Your task to perform on an android device: turn on sleep mode Image 0: 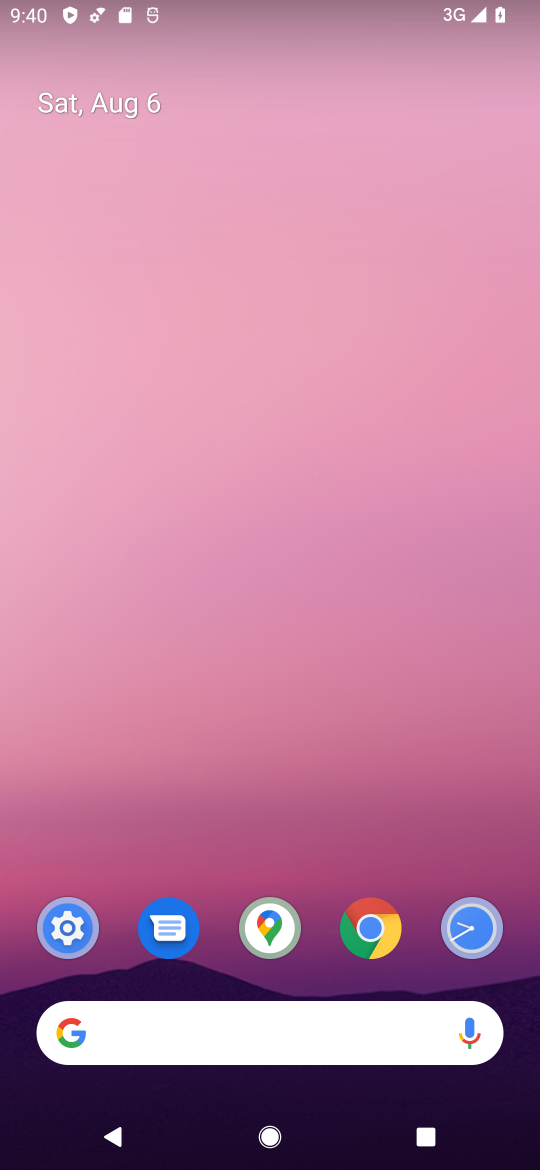
Step 0: click (436, 562)
Your task to perform on an android device: turn on sleep mode Image 1: 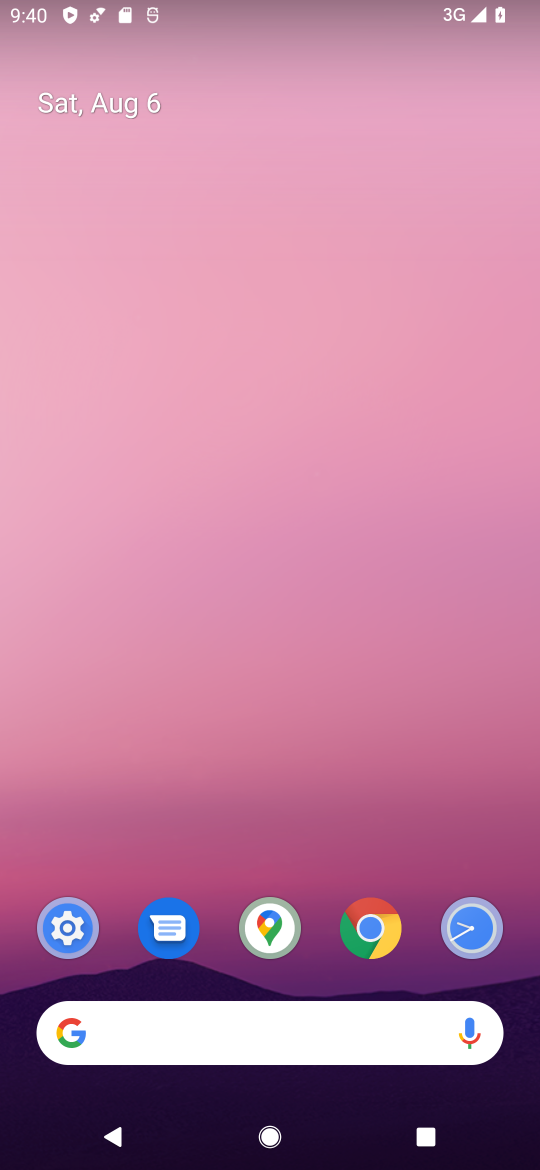
Step 1: press home button
Your task to perform on an android device: turn on sleep mode Image 2: 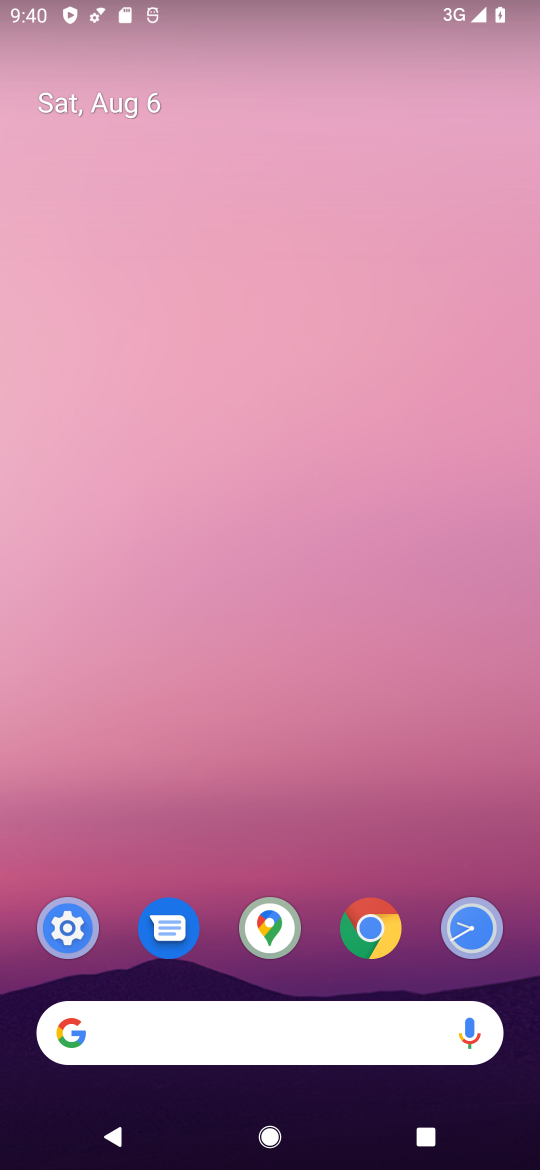
Step 2: drag from (262, 753) to (240, 306)
Your task to perform on an android device: turn on sleep mode Image 3: 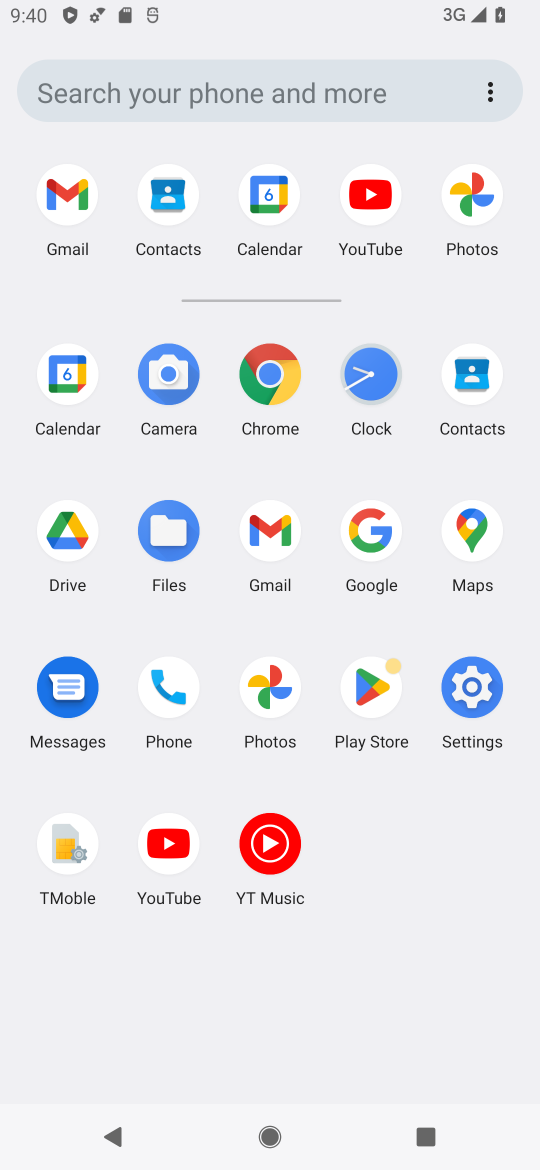
Step 3: click (262, 678)
Your task to perform on an android device: turn on sleep mode Image 4: 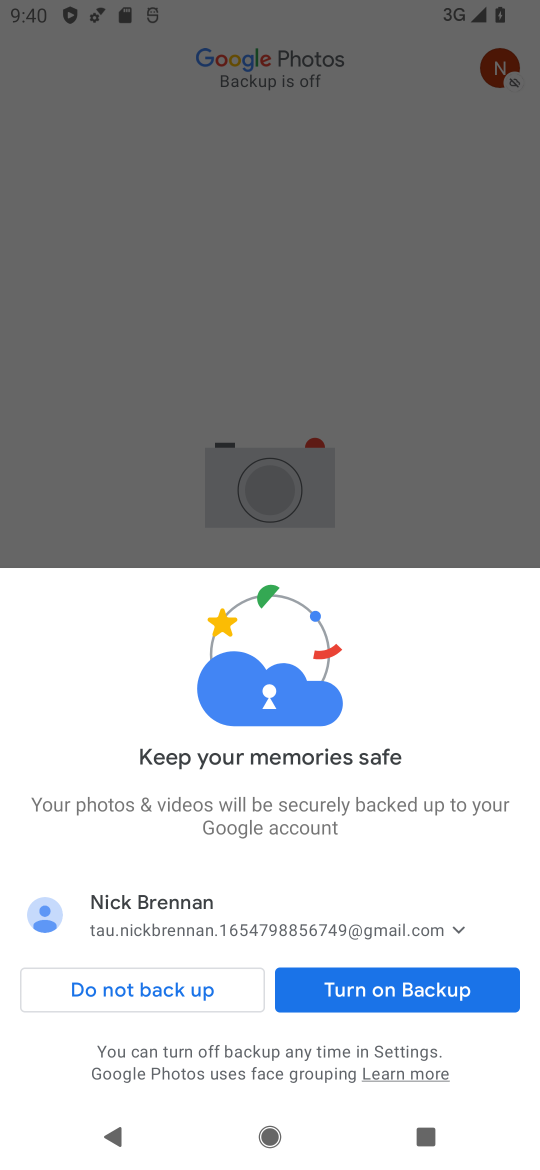
Step 4: press home button
Your task to perform on an android device: turn on sleep mode Image 5: 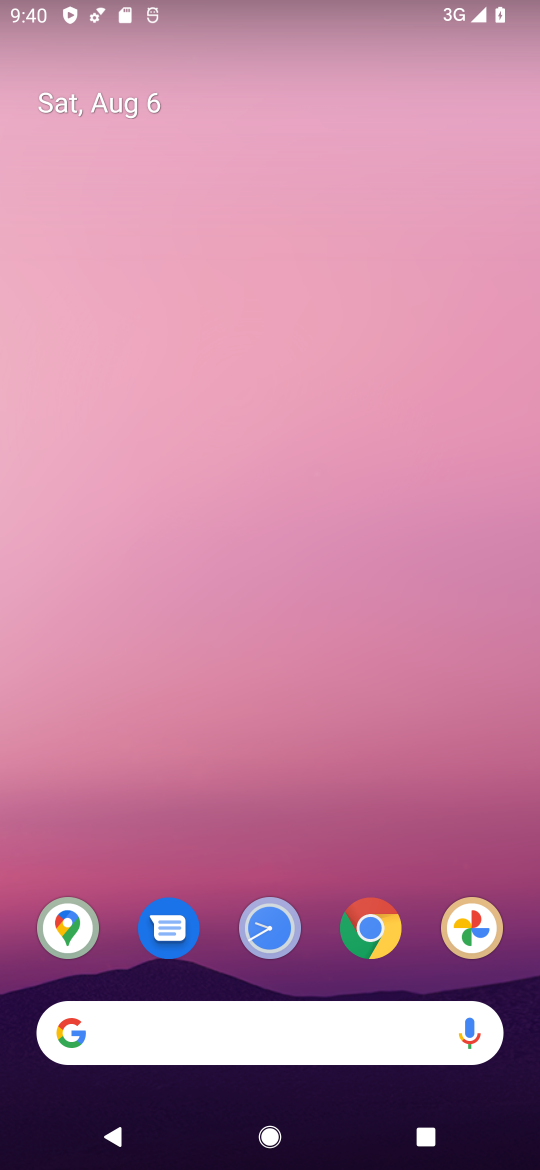
Step 5: drag from (271, 845) to (230, 179)
Your task to perform on an android device: turn on sleep mode Image 6: 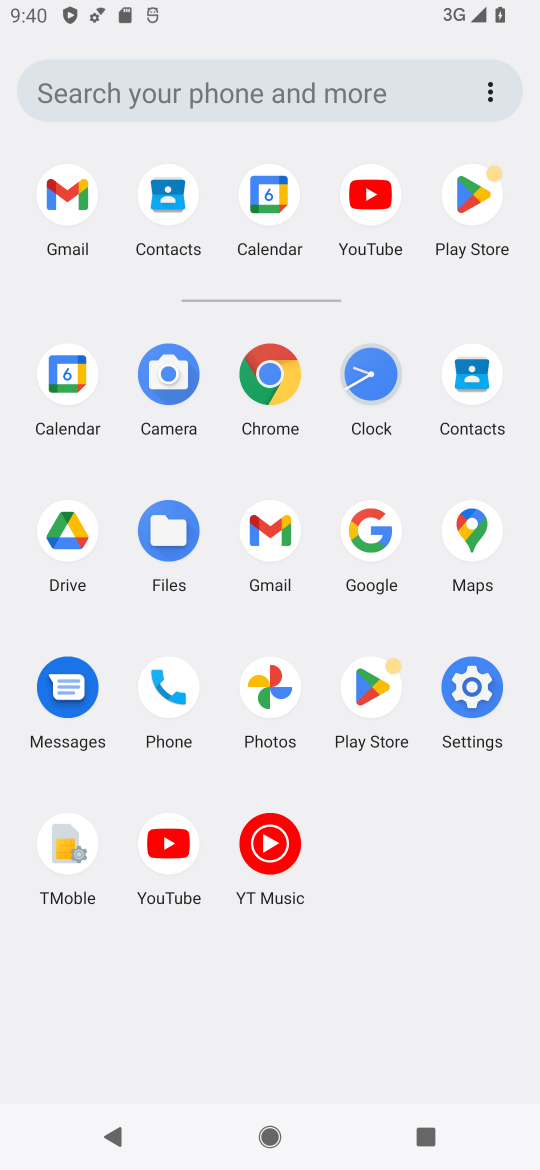
Step 6: click (473, 676)
Your task to perform on an android device: turn on sleep mode Image 7: 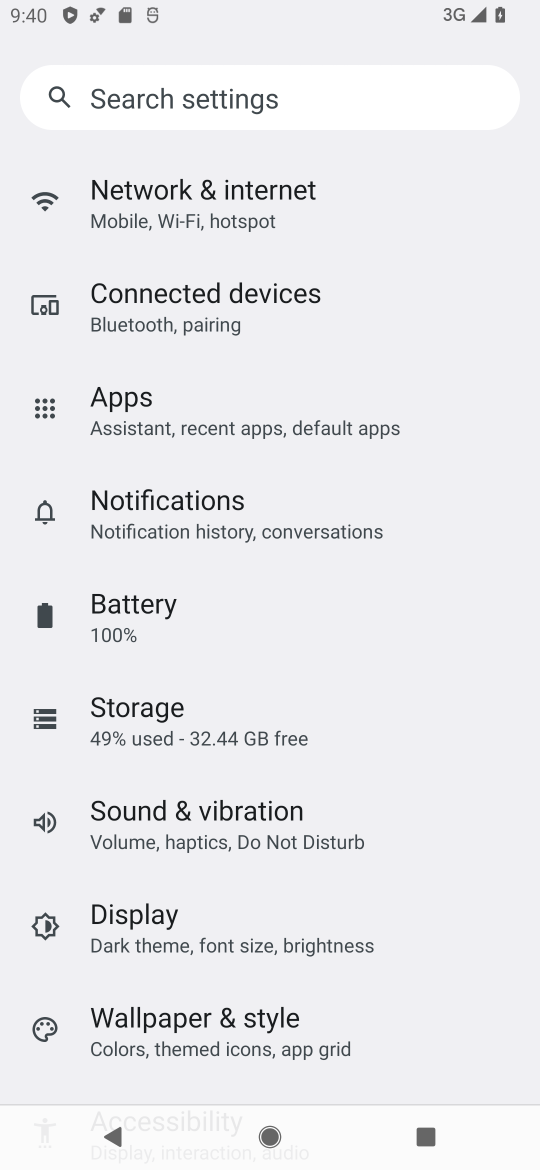
Step 7: click (139, 911)
Your task to perform on an android device: turn on sleep mode Image 8: 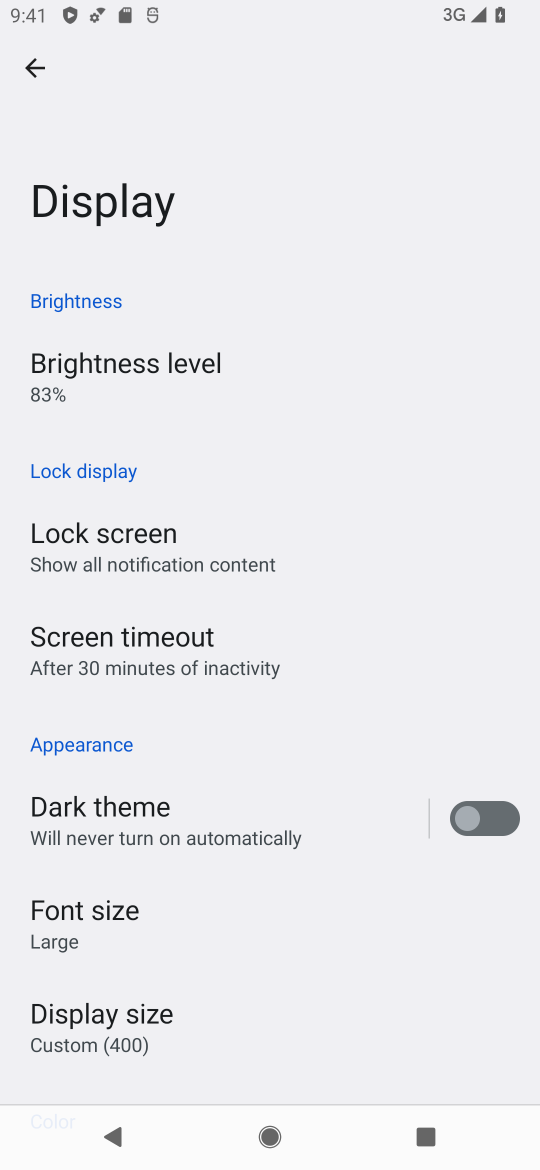
Step 8: task complete